Your task to perform on an android device: refresh tabs in the chrome app Image 0: 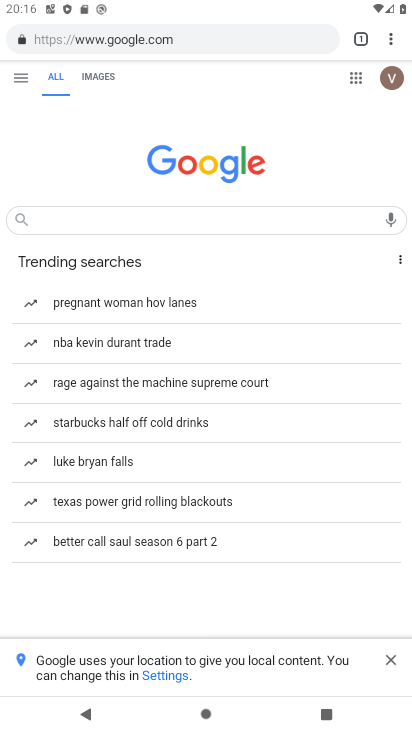
Step 0: click (385, 45)
Your task to perform on an android device: refresh tabs in the chrome app Image 1: 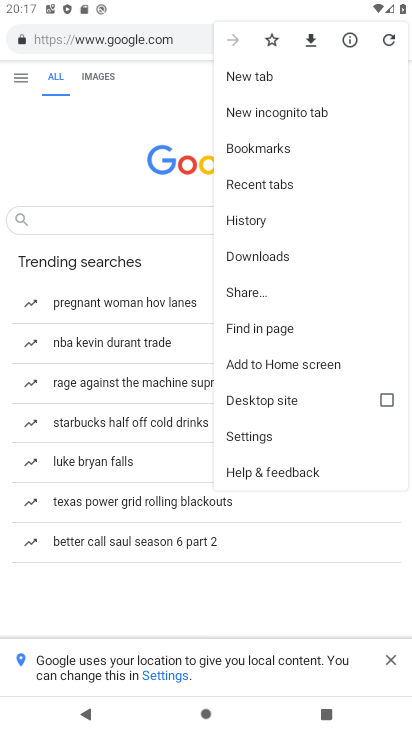
Step 1: click (393, 48)
Your task to perform on an android device: refresh tabs in the chrome app Image 2: 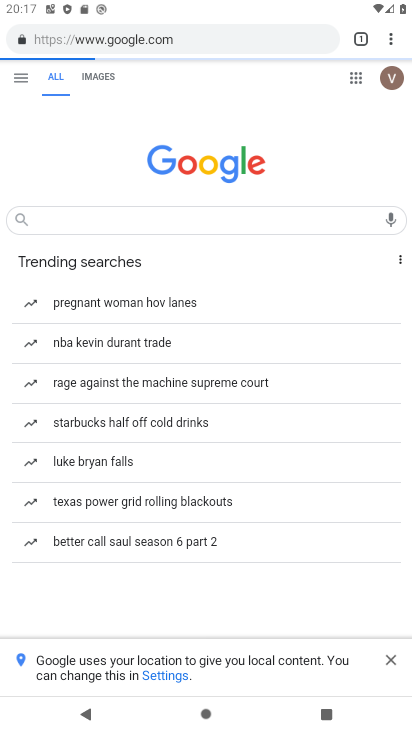
Step 2: task complete